Your task to perform on an android device: Go to display settings Image 0: 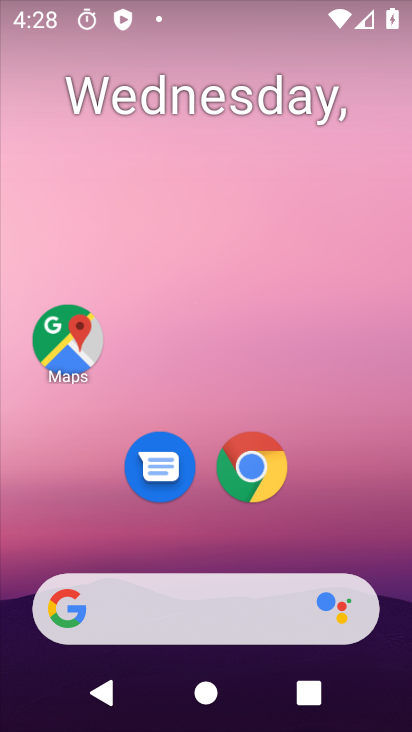
Step 0: drag from (396, 644) to (291, 106)
Your task to perform on an android device: Go to display settings Image 1: 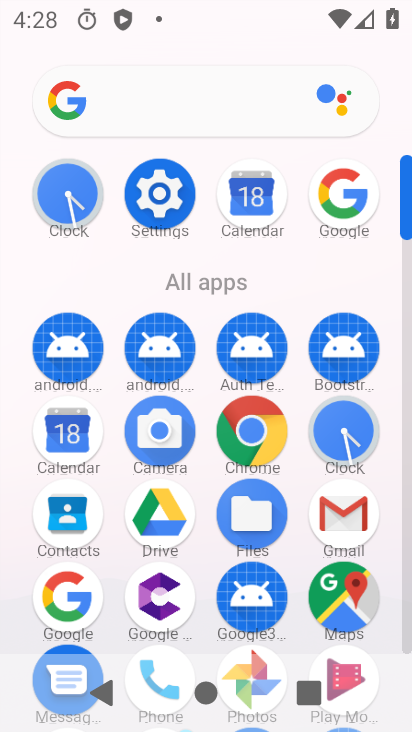
Step 1: click (167, 191)
Your task to perform on an android device: Go to display settings Image 2: 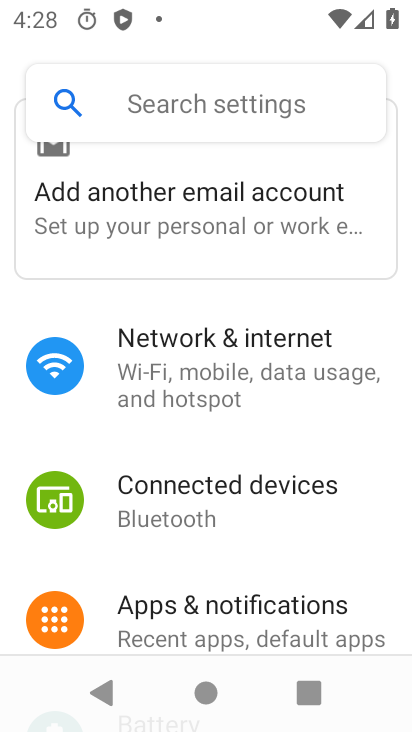
Step 2: drag from (375, 601) to (353, 236)
Your task to perform on an android device: Go to display settings Image 3: 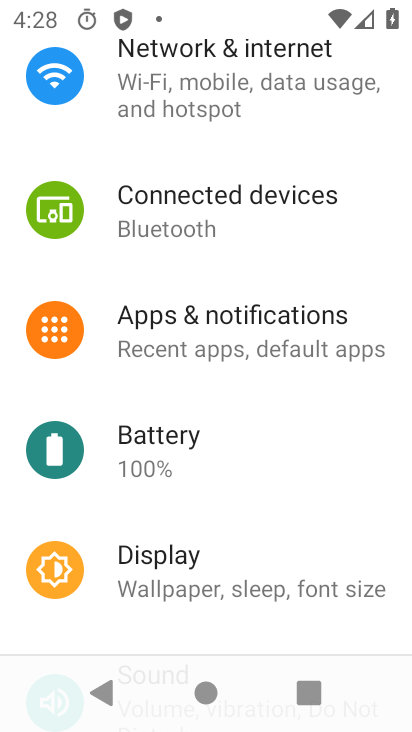
Step 3: click (133, 561)
Your task to perform on an android device: Go to display settings Image 4: 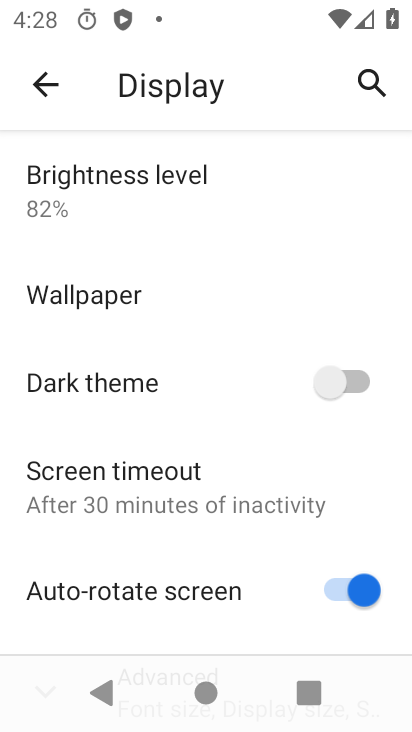
Step 4: task complete